Your task to perform on an android device: add a contact in the contacts app Image 0: 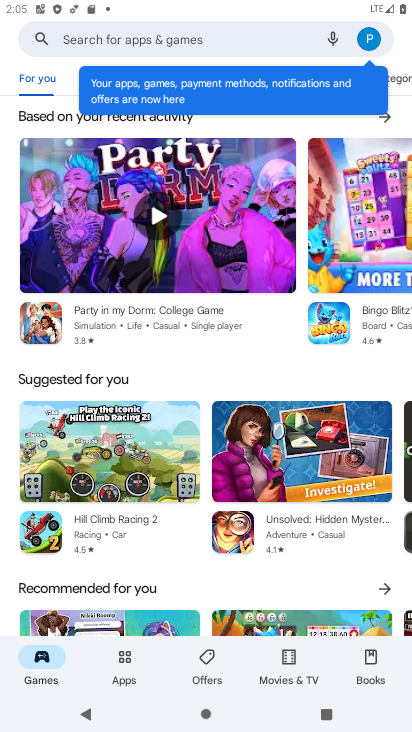
Step 0: press home button
Your task to perform on an android device: add a contact in the contacts app Image 1: 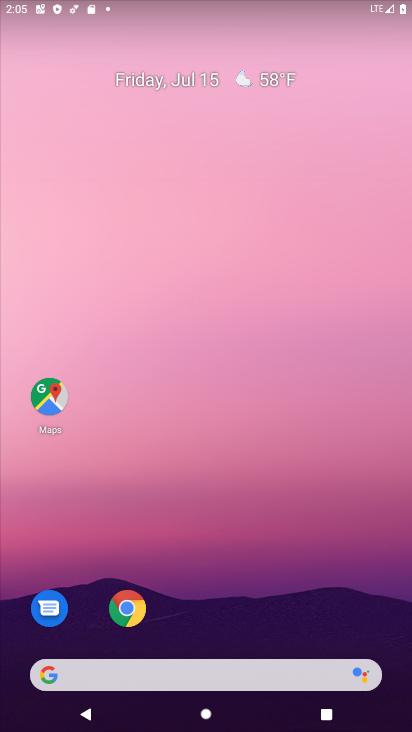
Step 1: drag from (267, 602) to (291, 133)
Your task to perform on an android device: add a contact in the contacts app Image 2: 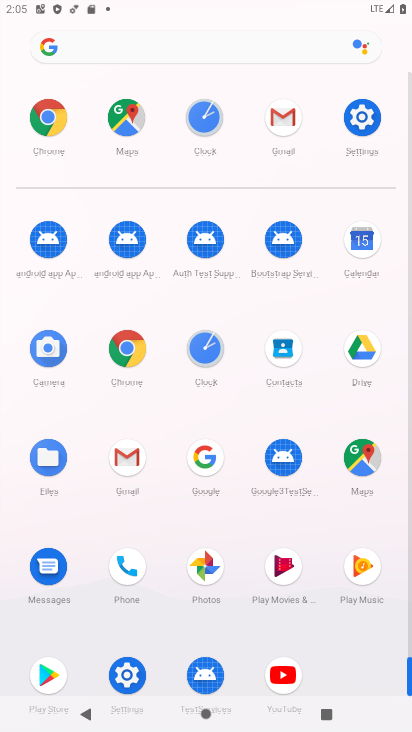
Step 2: drag from (263, 632) to (258, 316)
Your task to perform on an android device: add a contact in the contacts app Image 3: 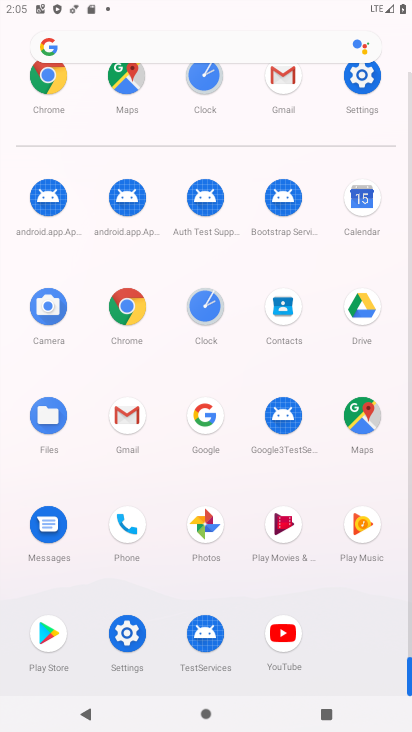
Step 3: click (283, 280)
Your task to perform on an android device: add a contact in the contacts app Image 4: 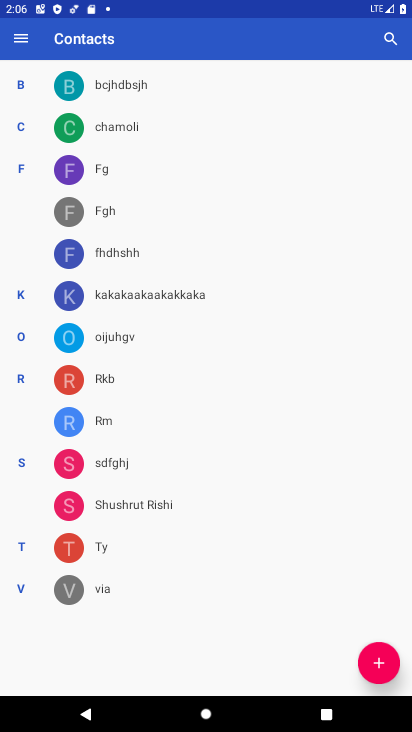
Step 4: press home button
Your task to perform on an android device: add a contact in the contacts app Image 5: 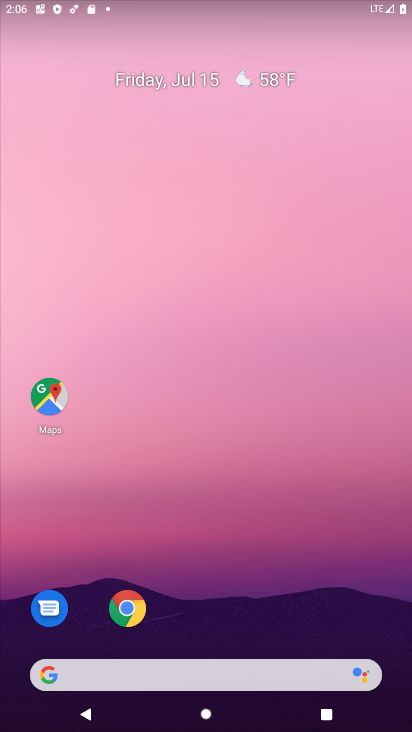
Step 5: drag from (244, 631) to (244, 132)
Your task to perform on an android device: add a contact in the contacts app Image 6: 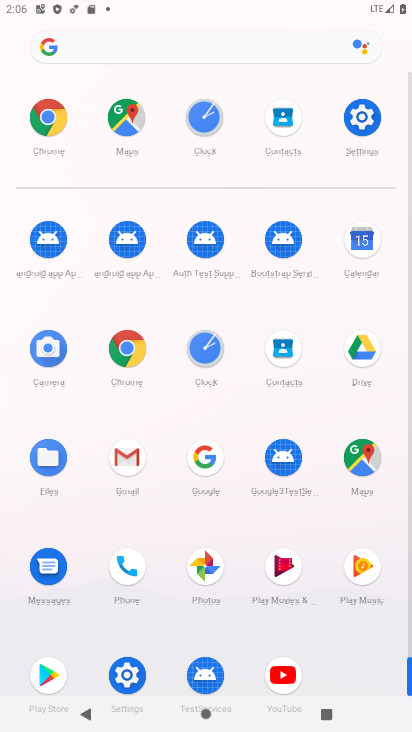
Step 6: click (280, 107)
Your task to perform on an android device: add a contact in the contacts app Image 7: 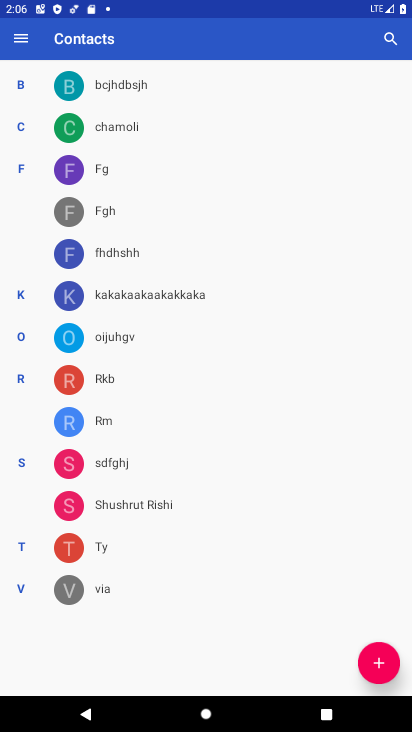
Step 7: click (373, 659)
Your task to perform on an android device: add a contact in the contacts app Image 8: 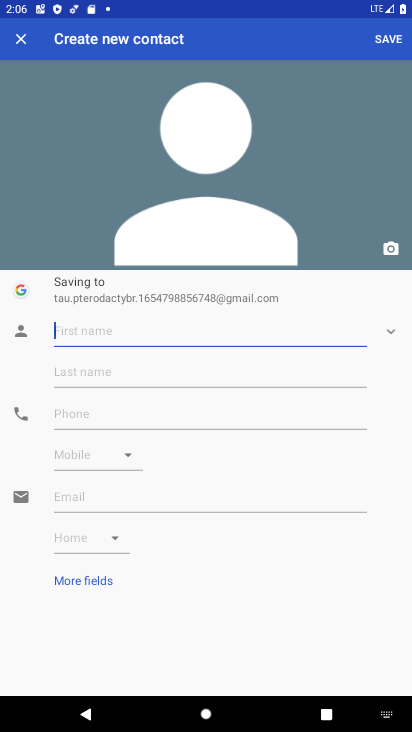
Step 8: type "bbvfg"
Your task to perform on an android device: add a contact in the contacts app Image 9: 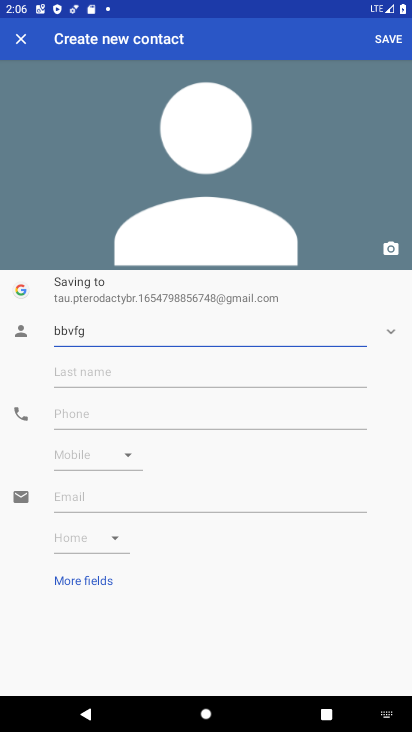
Step 9: click (81, 405)
Your task to perform on an android device: add a contact in the contacts app Image 10: 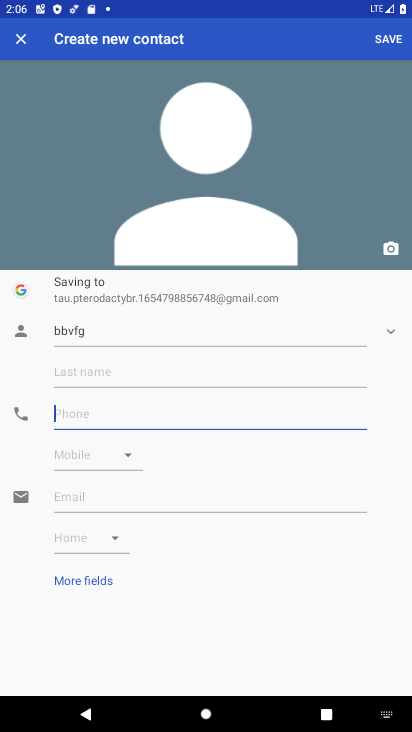
Step 10: type "3422"
Your task to perform on an android device: add a contact in the contacts app Image 11: 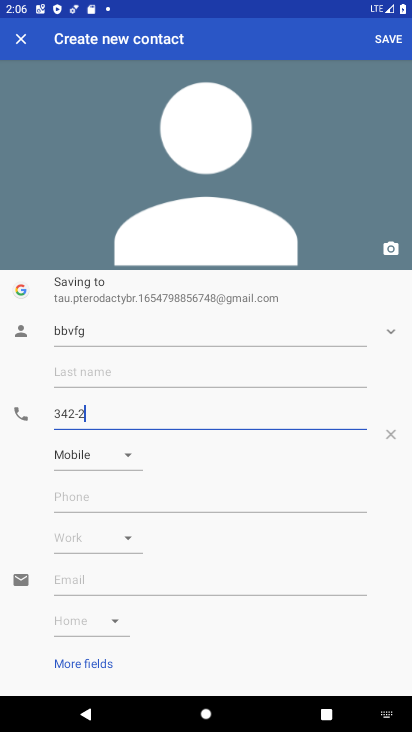
Step 11: click (370, 35)
Your task to perform on an android device: add a contact in the contacts app Image 12: 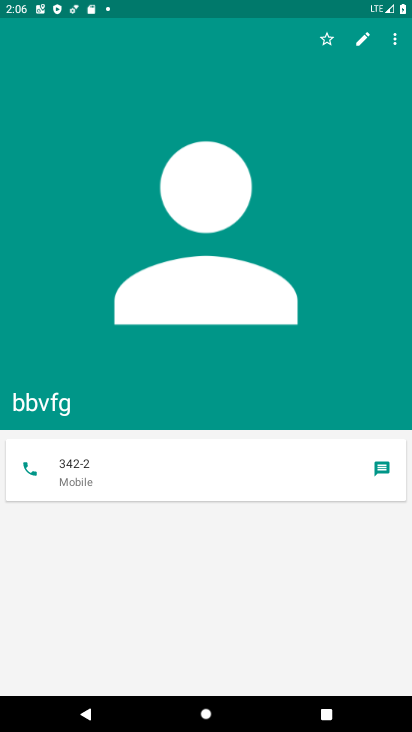
Step 12: task complete